Your task to perform on an android device: uninstall "Reddit" Image 0: 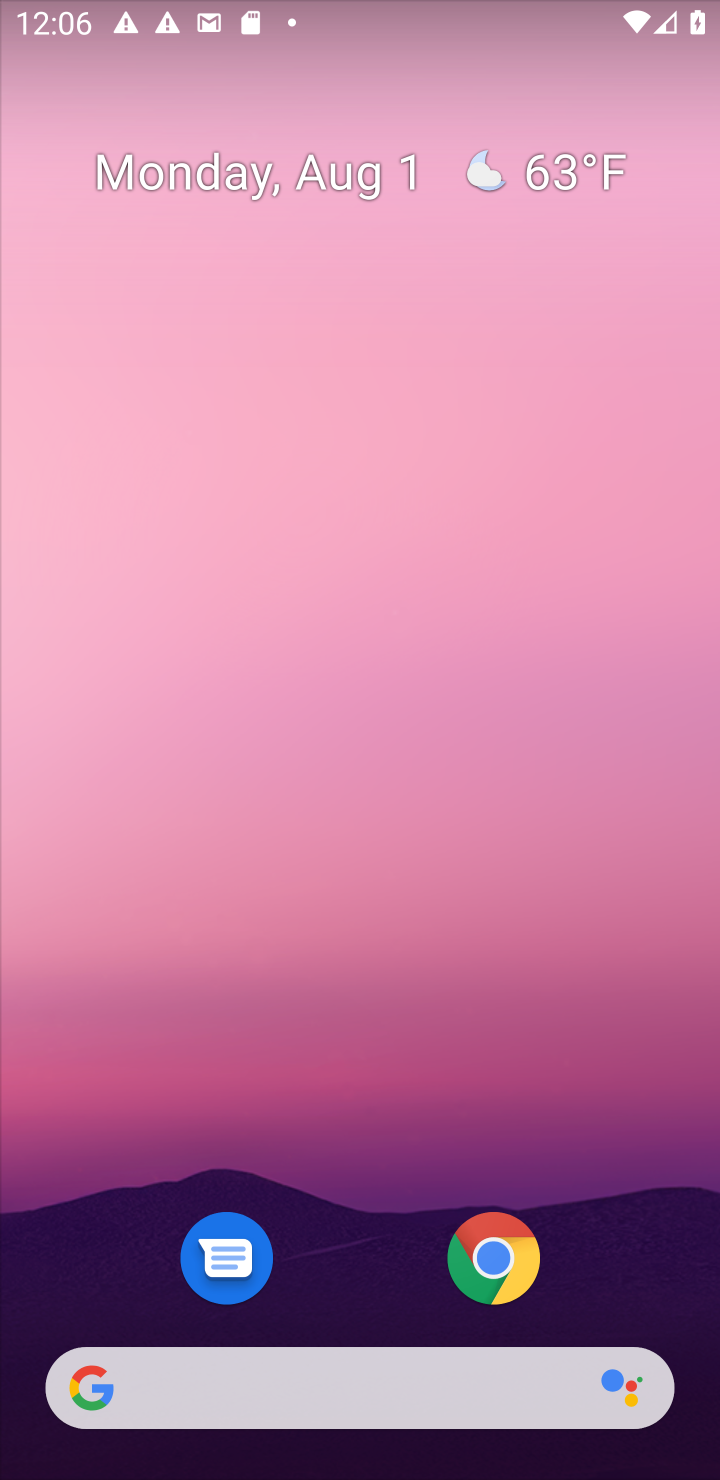
Step 0: drag from (381, 1321) to (549, 1358)
Your task to perform on an android device: uninstall "Reddit" Image 1: 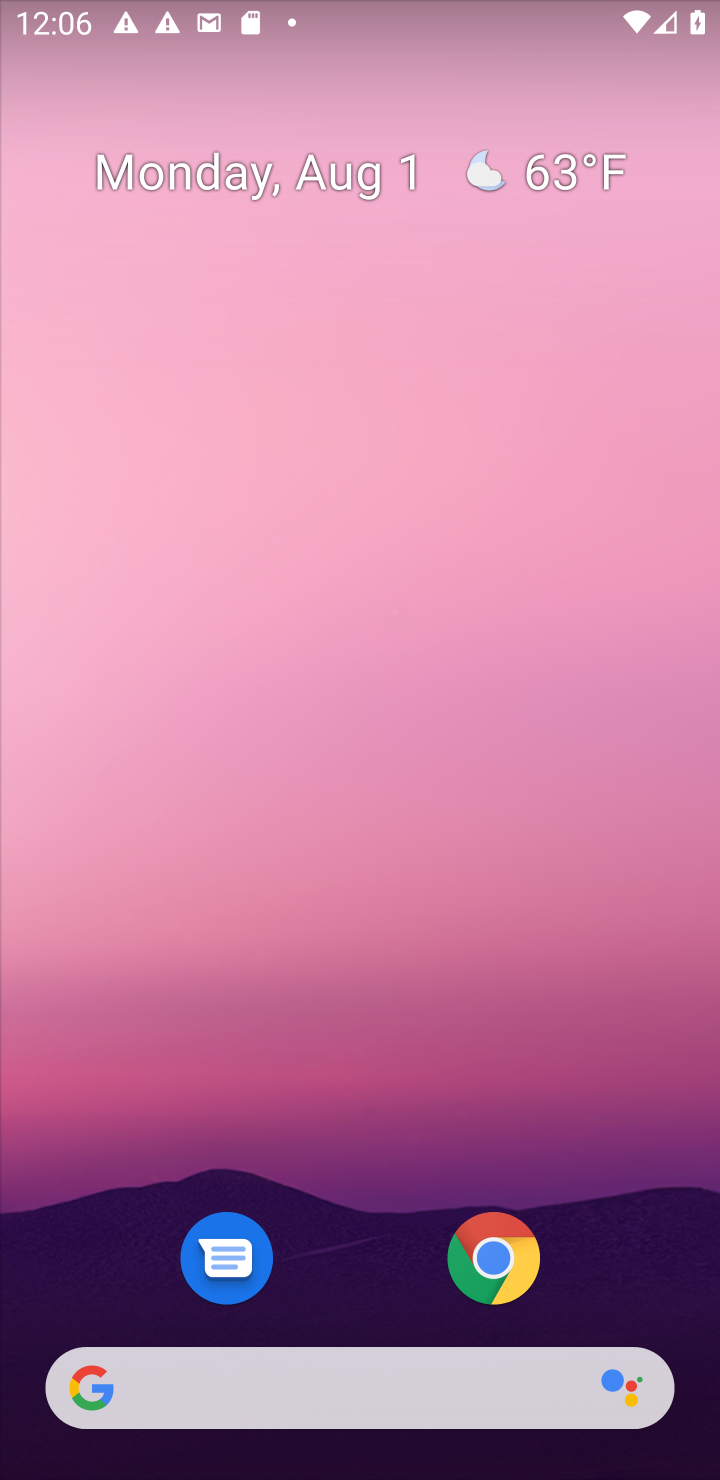
Step 1: drag from (330, 1244) to (164, 229)
Your task to perform on an android device: uninstall "Reddit" Image 2: 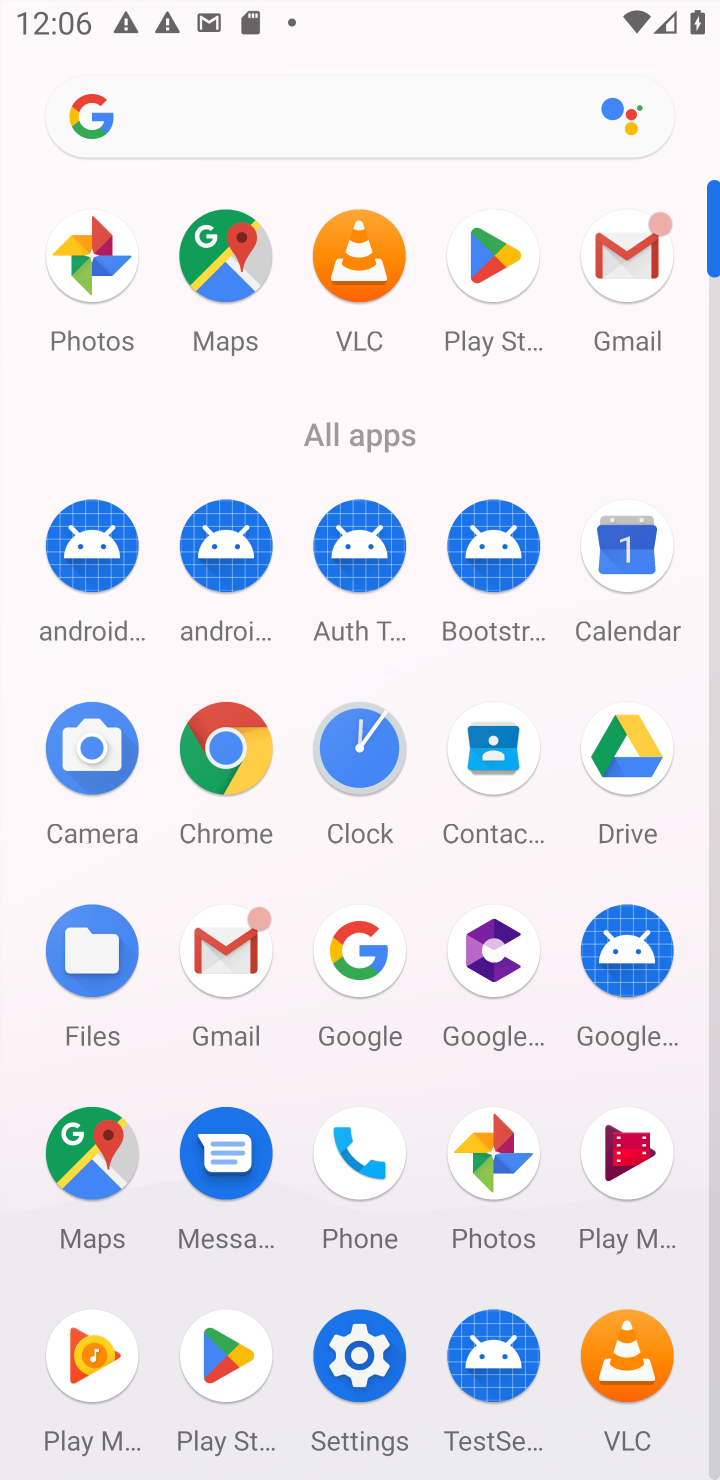
Step 2: click (223, 1354)
Your task to perform on an android device: uninstall "Reddit" Image 3: 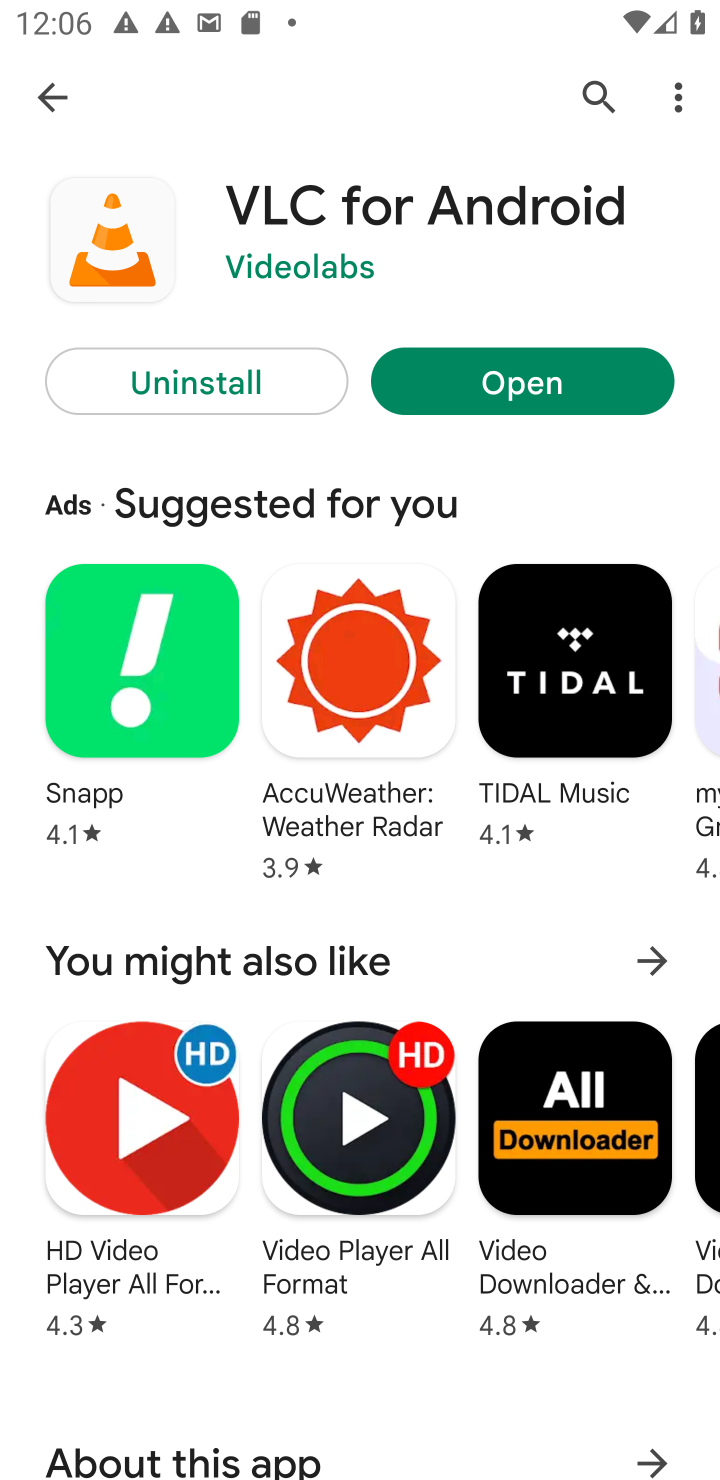
Step 3: click (46, 92)
Your task to perform on an android device: uninstall "Reddit" Image 4: 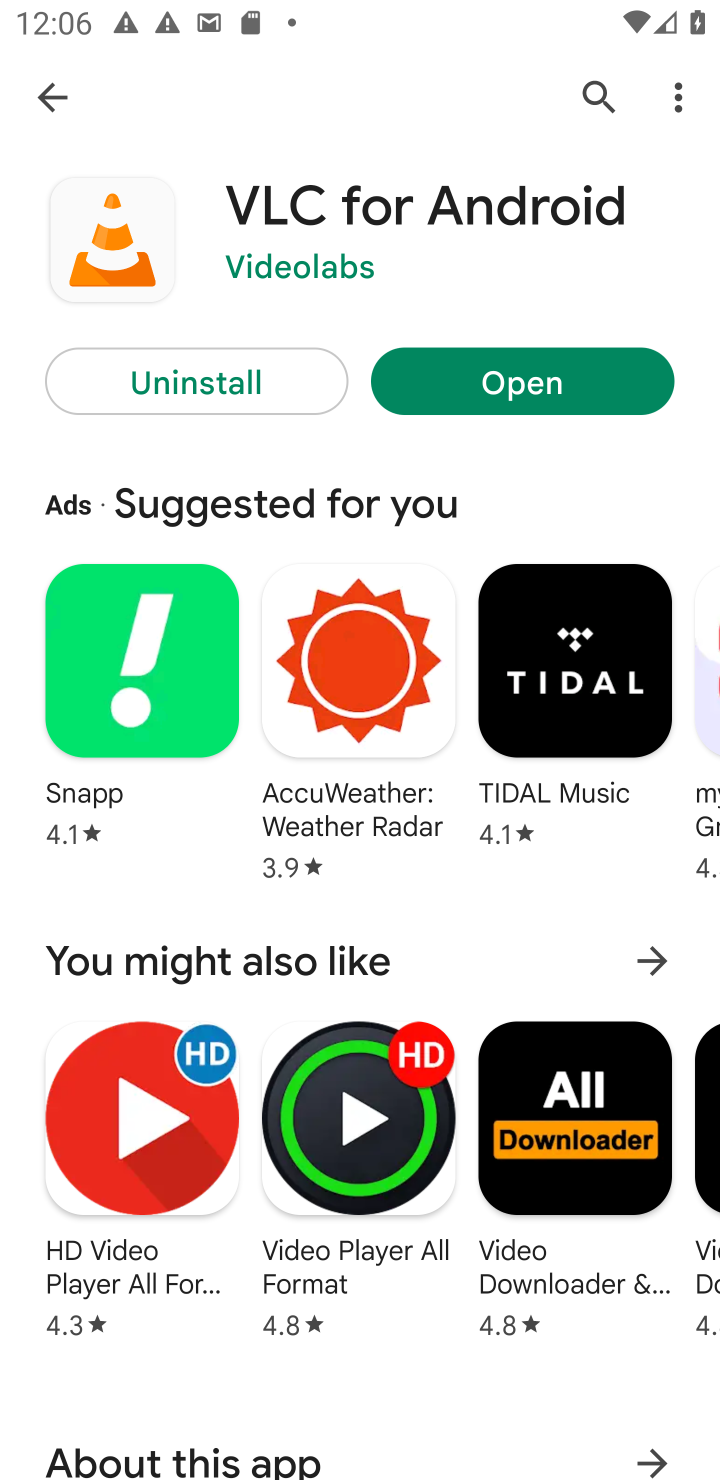
Step 4: click (49, 68)
Your task to perform on an android device: uninstall "Reddit" Image 5: 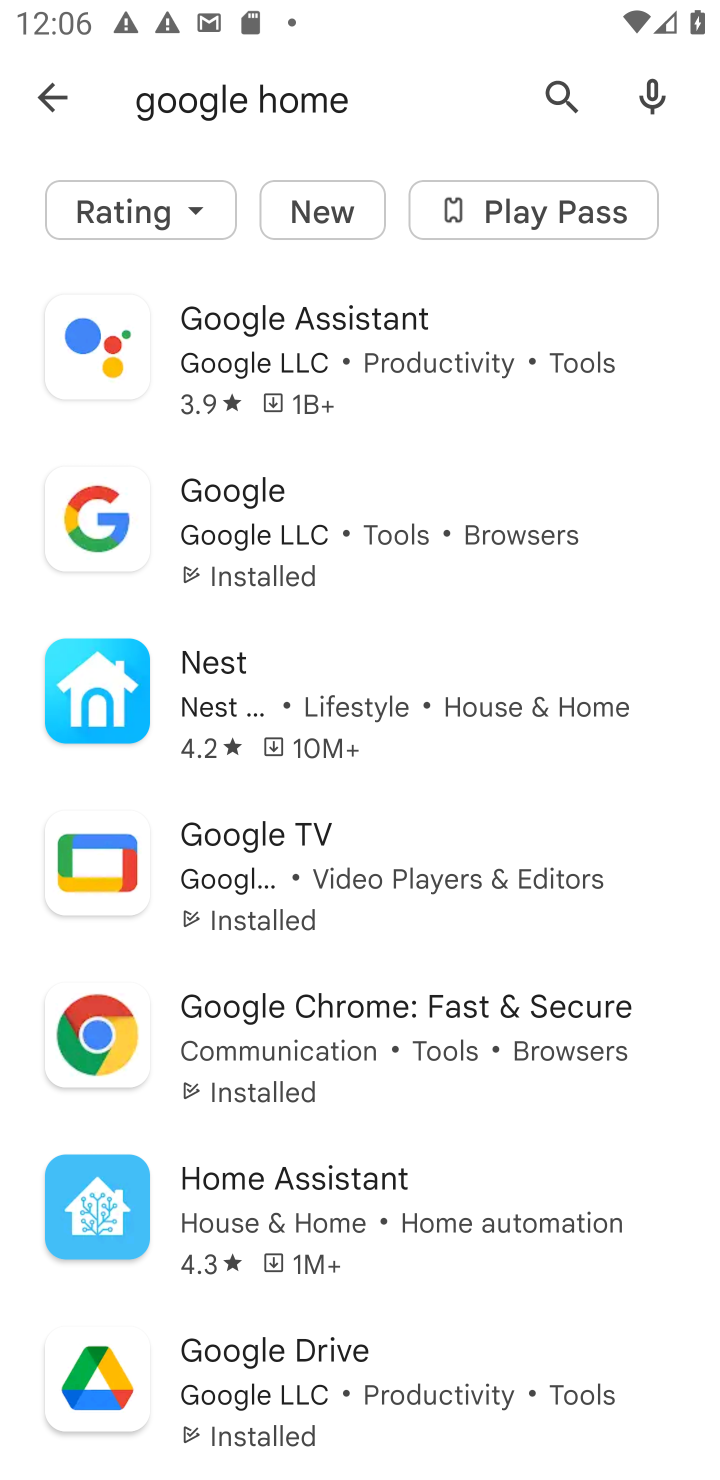
Step 5: click (55, 95)
Your task to perform on an android device: uninstall "Reddit" Image 6: 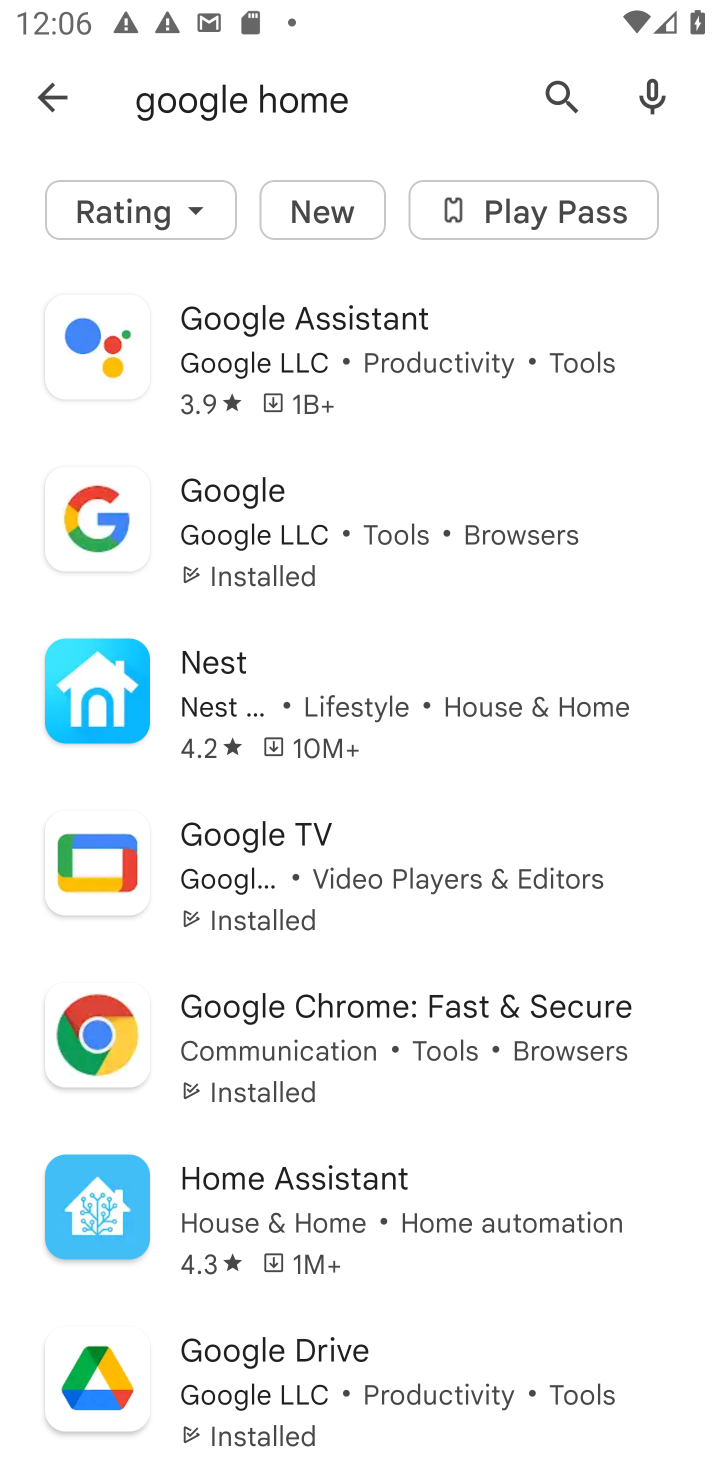
Step 6: click (66, 112)
Your task to perform on an android device: uninstall "Reddit" Image 7: 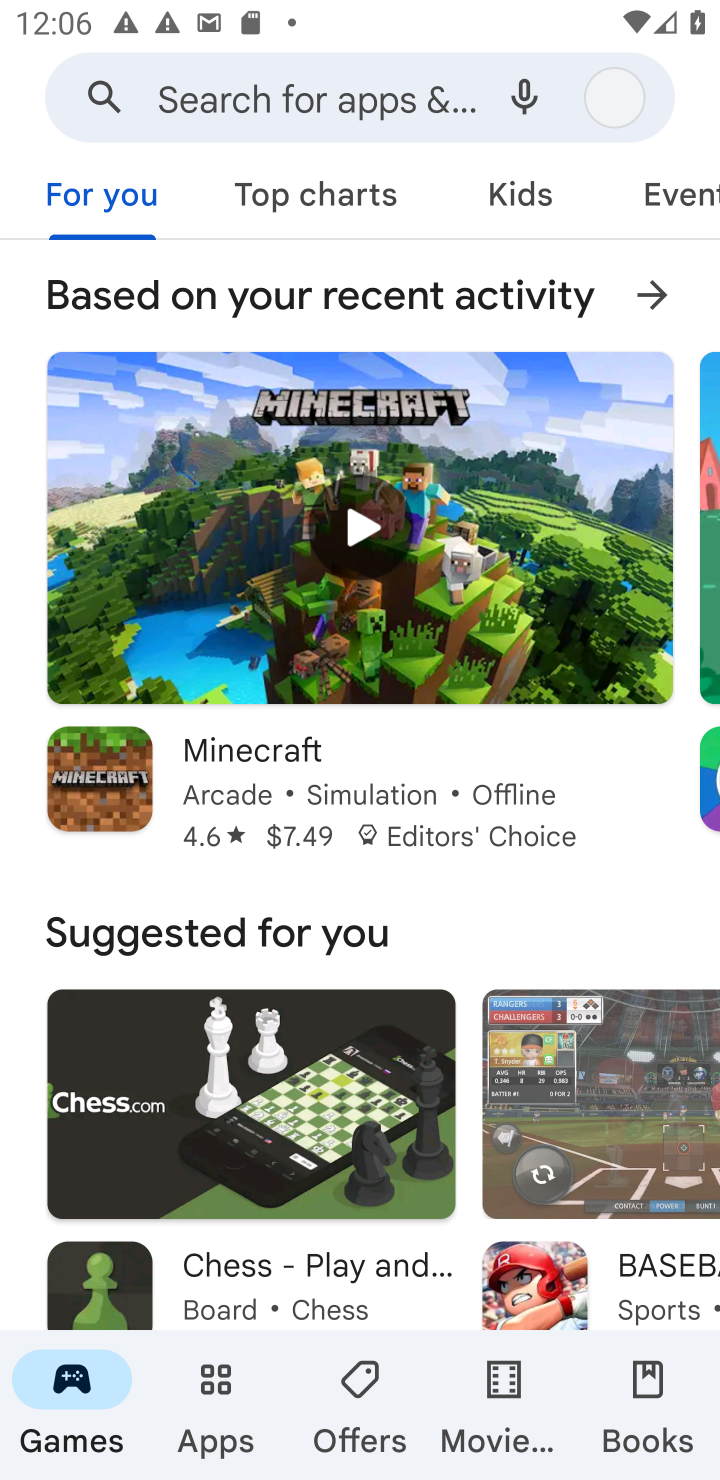
Step 7: click (211, 105)
Your task to perform on an android device: uninstall "Reddit" Image 8: 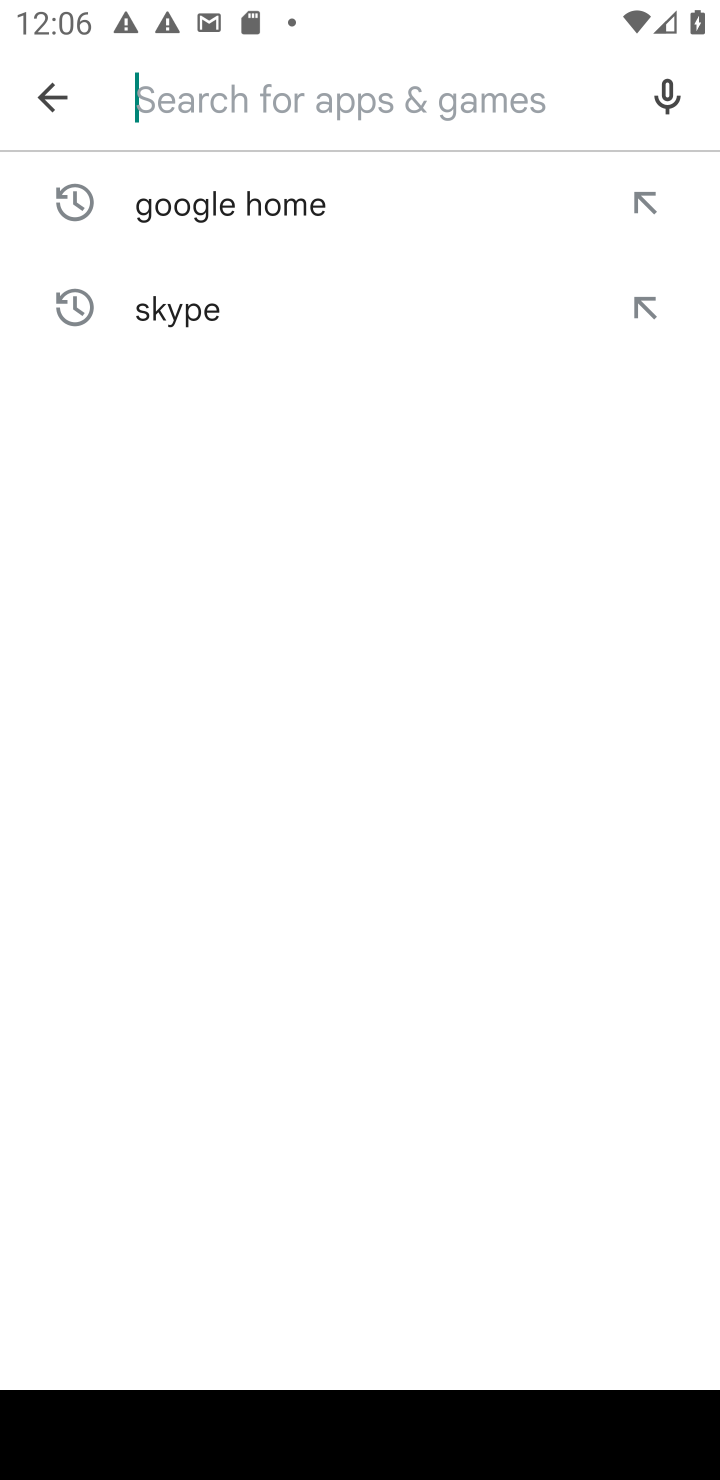
Step 8: type "Reddit"
Your task to perform on an android device: uninstall "Reddit" Image 9: 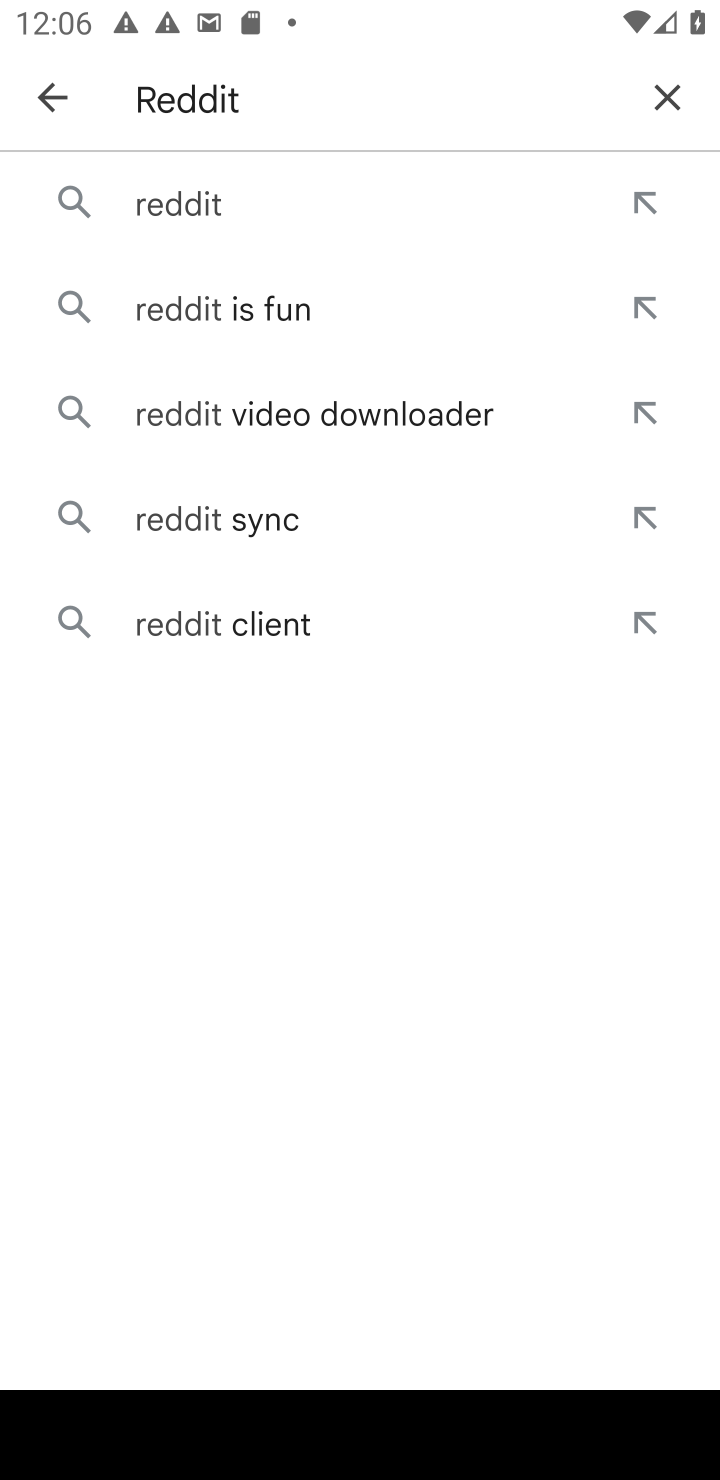
Step 9: click (206, 195)
Your task to perform on an android device: uninstall "Reddit" Image 10: 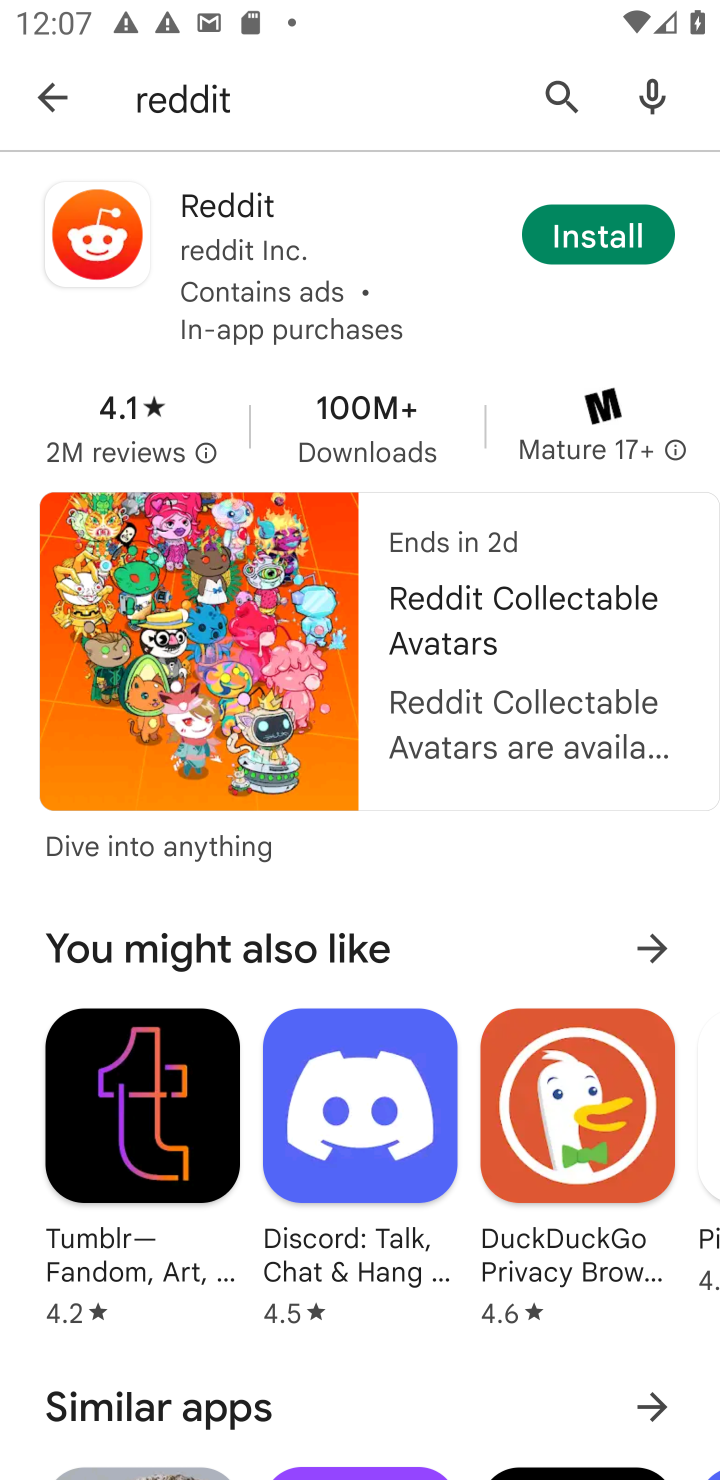
Step 10: task complete